Your task to perform on an android device: all mails in gmail Image 0: 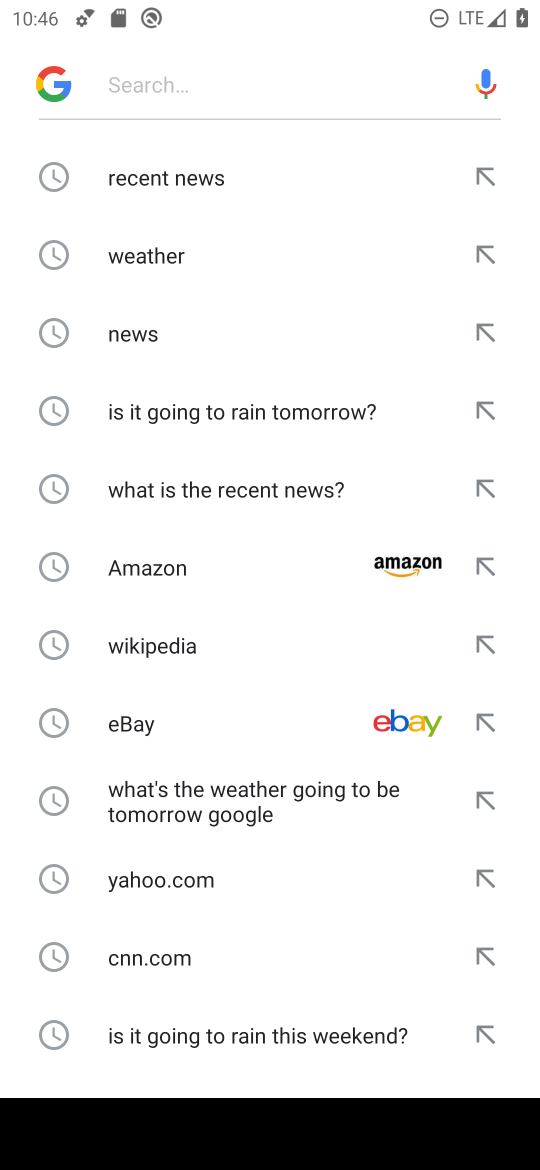
Step 0: press home button
Your task to perform on an android device: all mails in gmail Image 1: 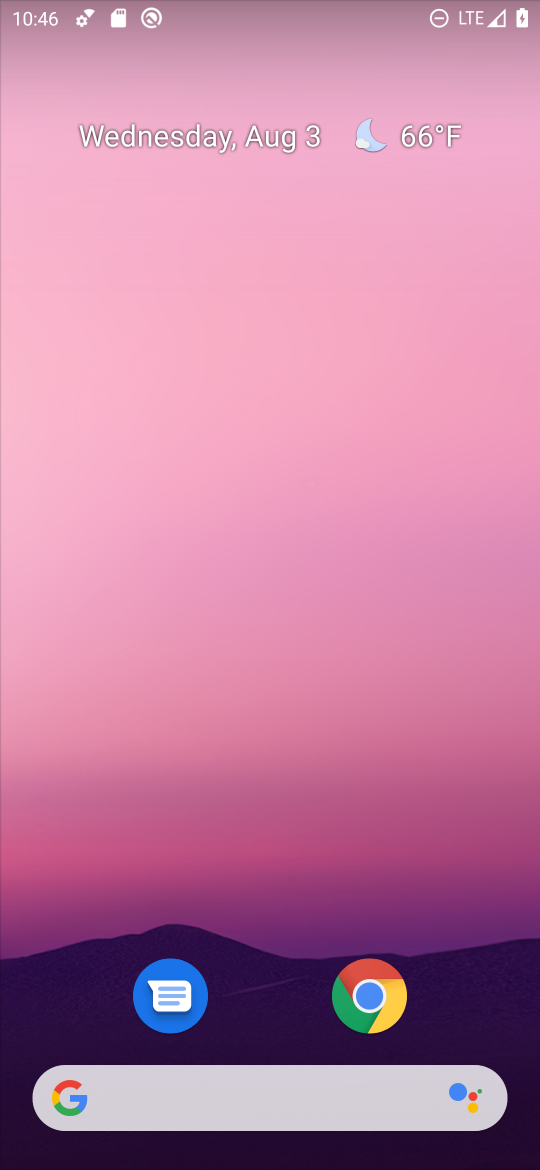
Step 1: drag from (270, 877) to (234, 11)
Your task to perform on an android device: all mails in gmail Image 2: 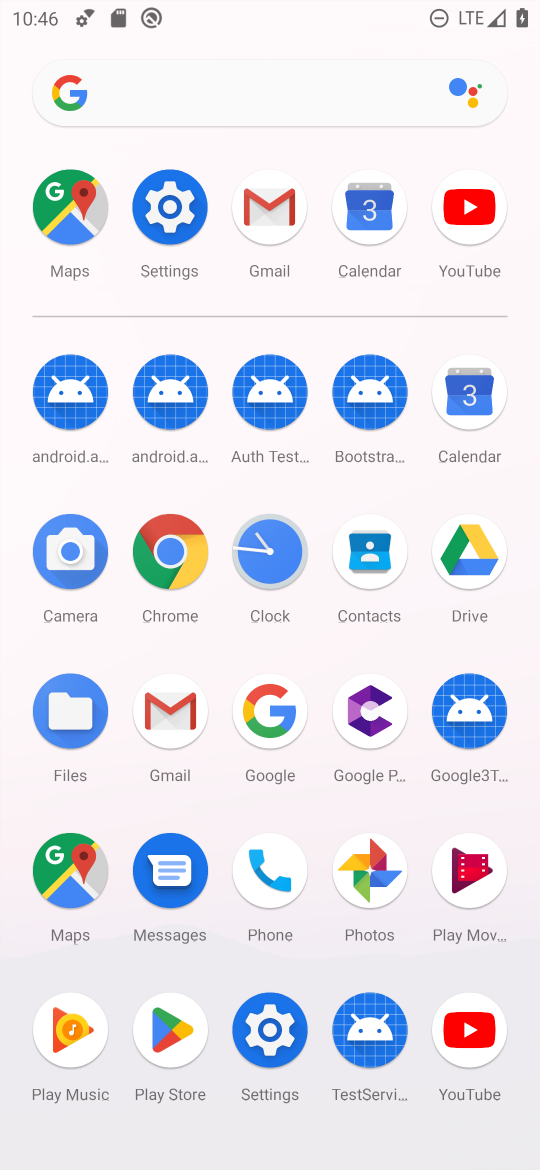
Step 2: click (274, 220)
Your task to perform on an android device: all mails in gmail Image 3: 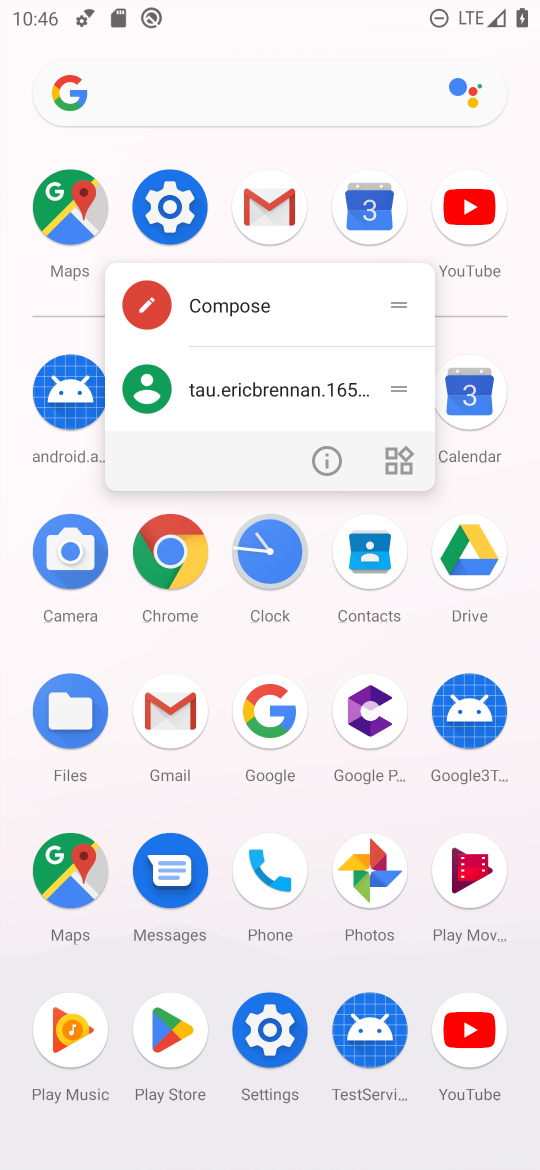
Step 3: click (272, 201)
Your task to perform on an android device: all mails in gmail Image 4: 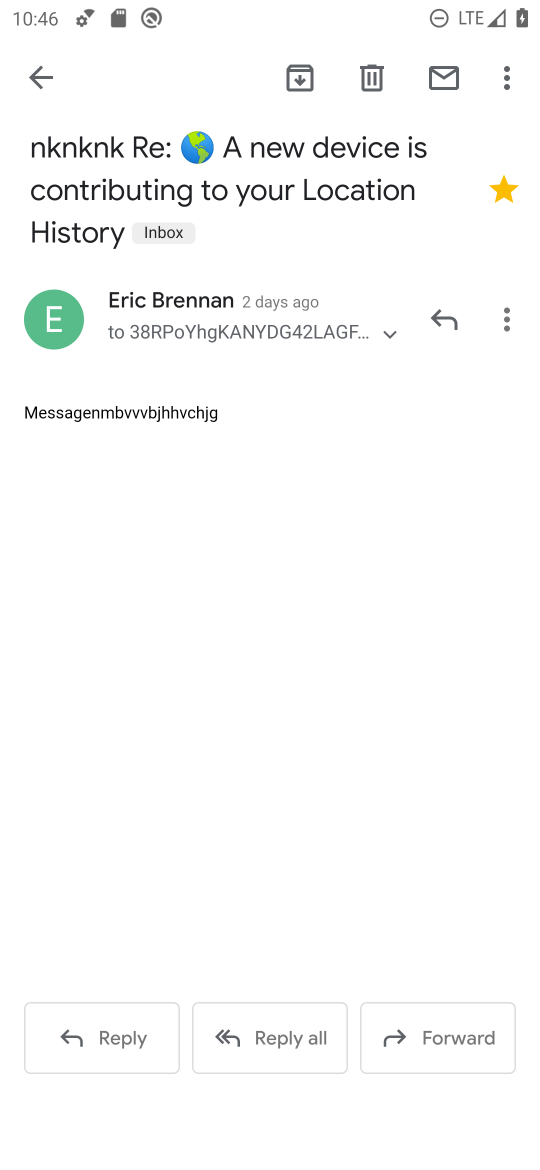
Step 4: click (47, 73)
Your task to perform on an android device: all mails in gmail Image 5: 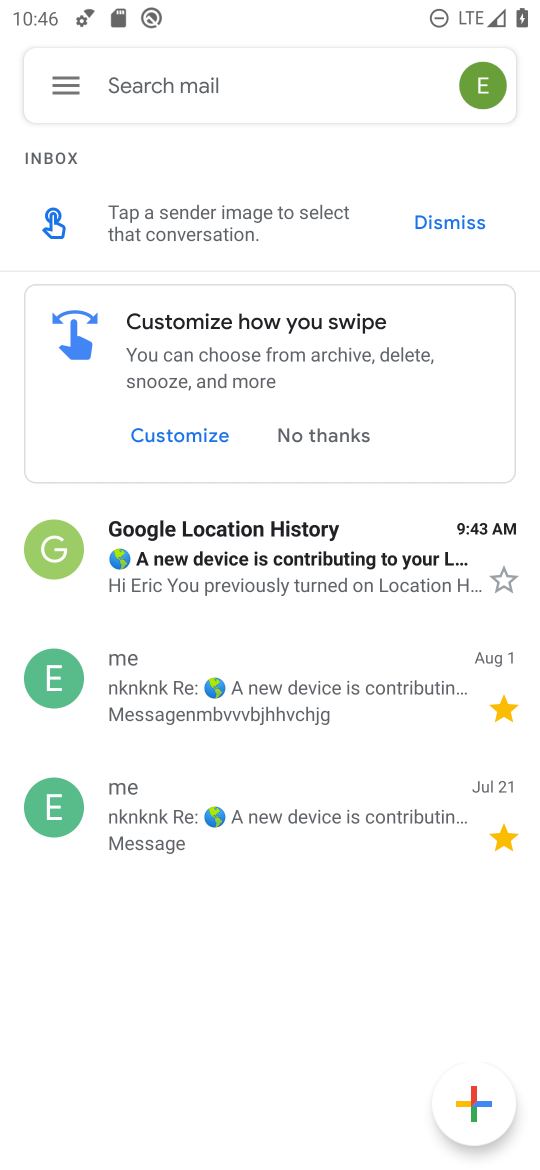
Step 5: click (67, 83)
Your task to perform on an android device: all mails in gmail Image 6: 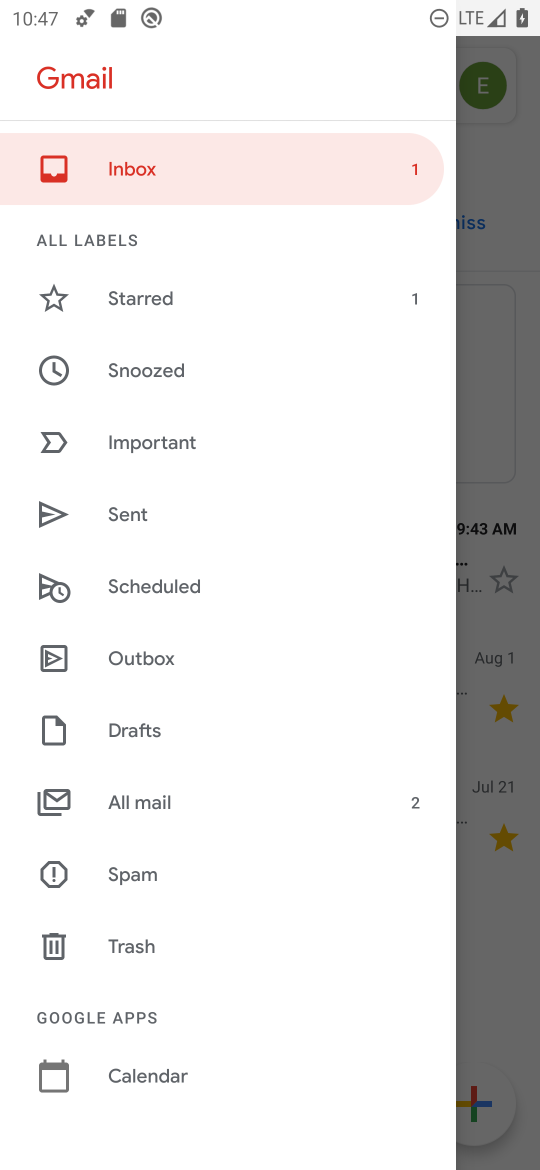
Step 6: click (212, 787)
Your task to perform on an android device: all mails in gmail Image 7: 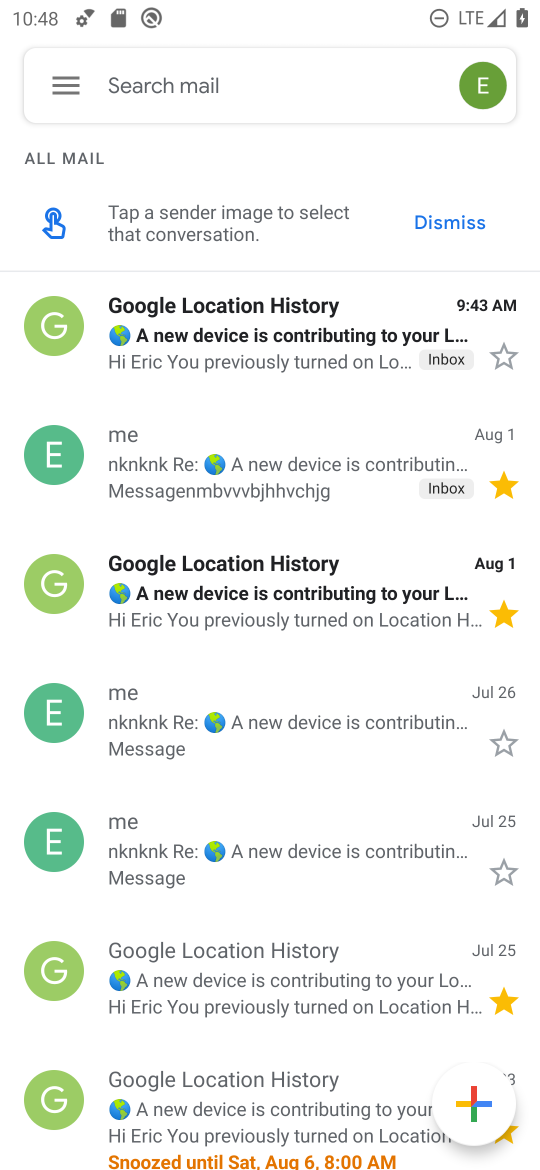
Step 7: task complete